Your task to perform on an android device: set an alarm Image 0: 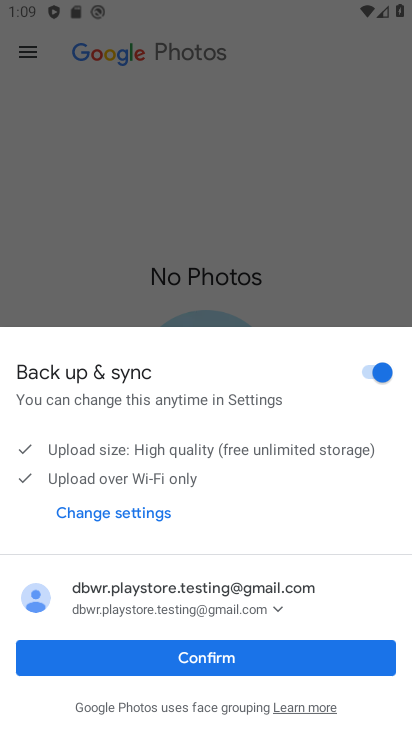
Step 0: press home button
Your task to perform on an android device: set an alarm Image 1: 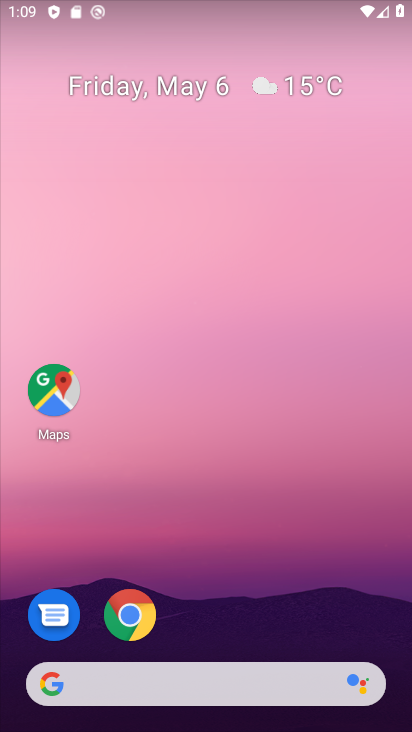
Step 1: drag from (236, 477) to (229, 23)
Your task to perform on an android device: set an alarm Image 2: 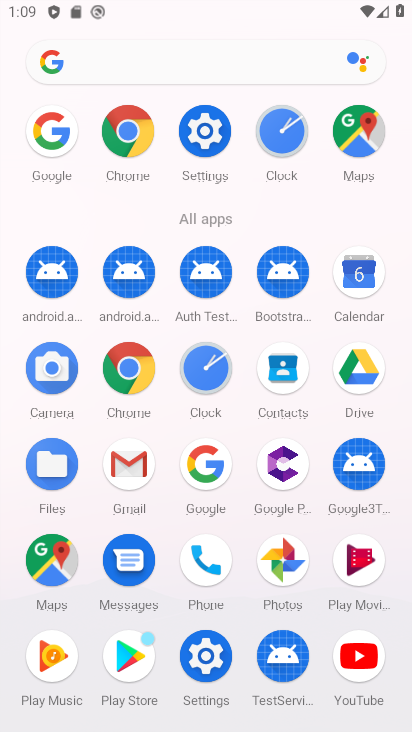
Step 2: click (281, 133)
Your task to perform on an android device: set an alarm Image 3: 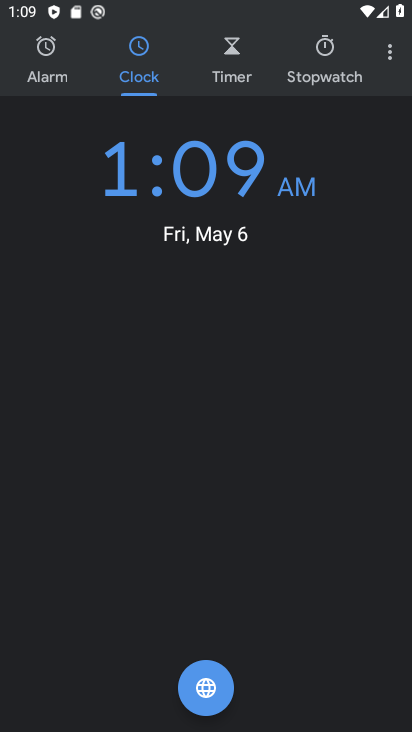
Step 3: click (38, 55)
Your task to perform on an android device: set an alarm Image 4: 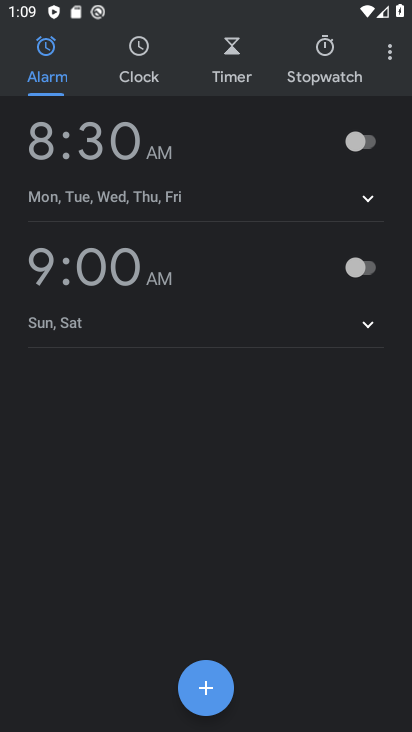
Step 4: click (205, 682)
Your task to perform on an android device: set an alarm Image 5: 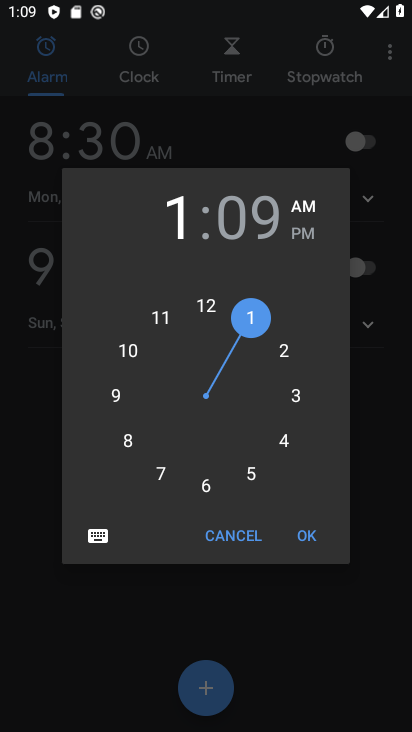
Step 5: click (244, 213)
Your task to perform on an android device: set an alarm Image 6: 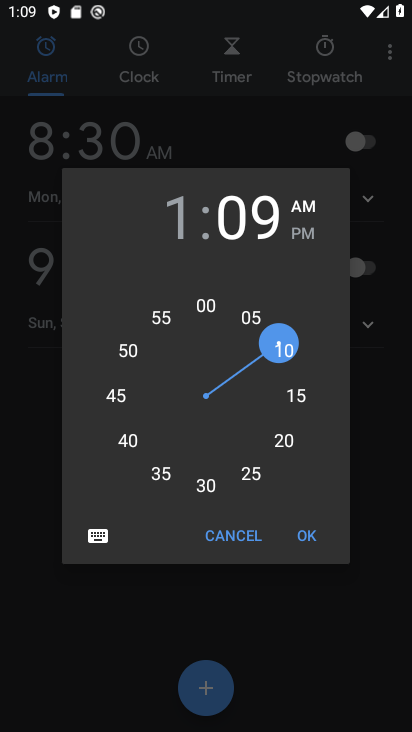
Step 6: click (206, 309)
Your task to perform on an android device: set an alarm Image 7: 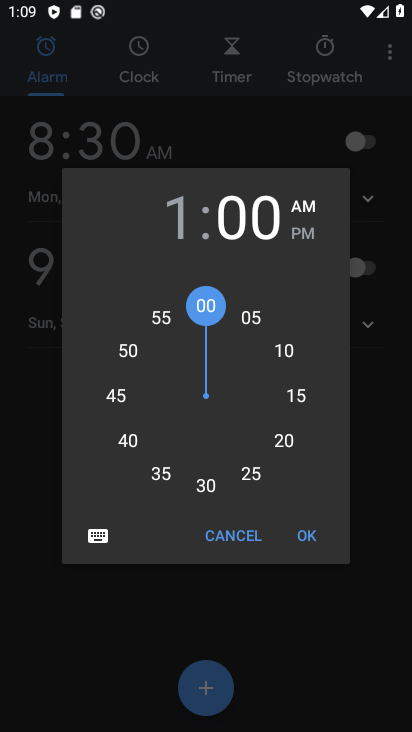
Step 7: click (301, 234)
Your task to perform on an android device: set an alarm Image 8: 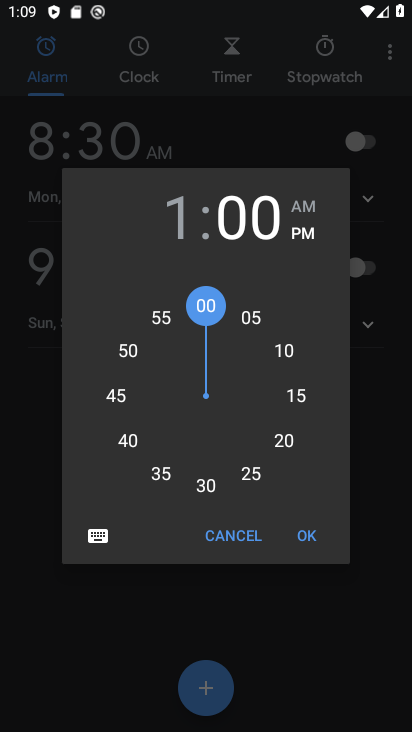
Step 8: click (306, 533)
Your task to perform on an android device: set an alarm Image 9: 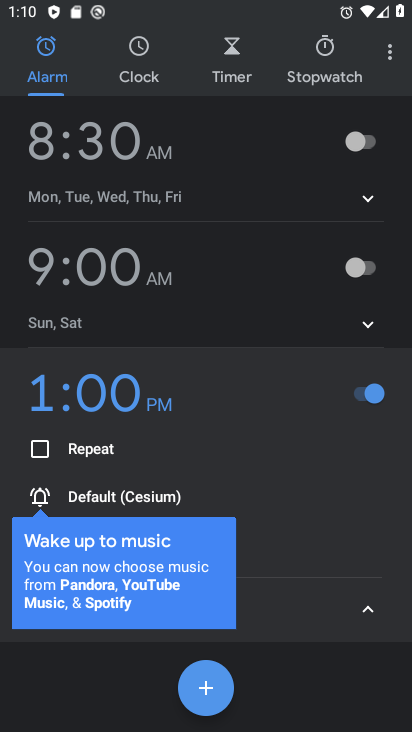
Step 9: task complete